Your task to perform on an android device: turn off notifications settings in the gmail app Image 0: 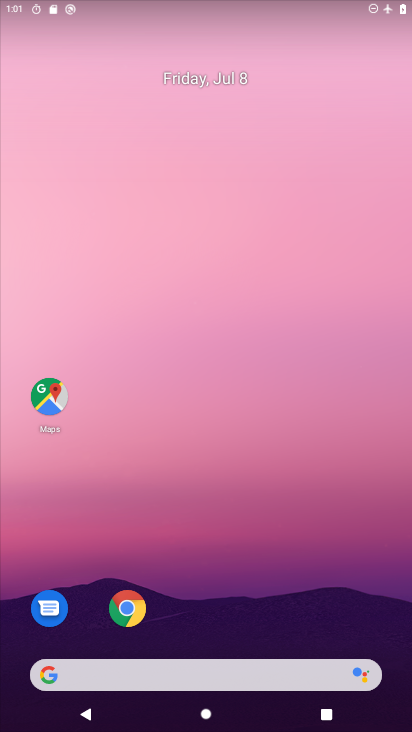
Step 0: drag from (235, 568) to (235, 86)
Your task to perform on an android device: turn off notifications settings in the gmail app Image 1: 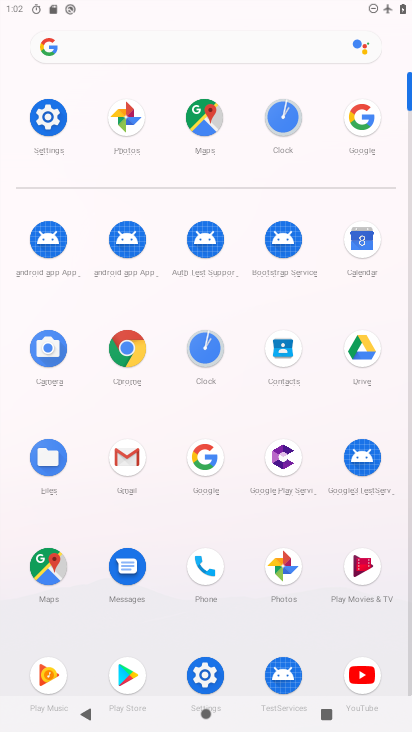
Step 1: click (127, 455)
Your task to perform on an android device: turn off notifications settings in the gmail app Image 2: 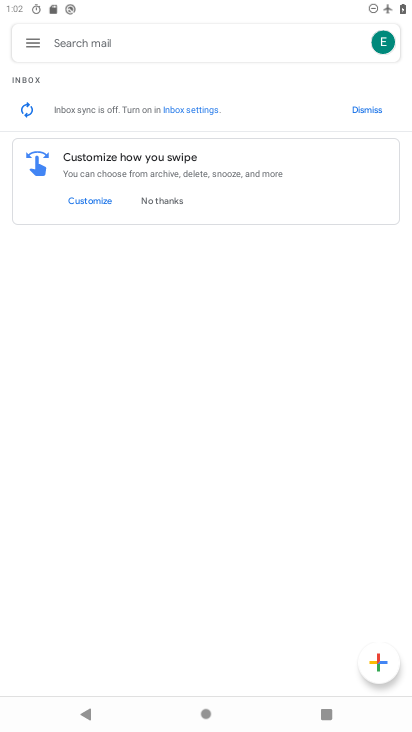
Step 2: click (27, 40)
Your task to perform on an android device: turn off notifications settings in the gmail app Image 3: 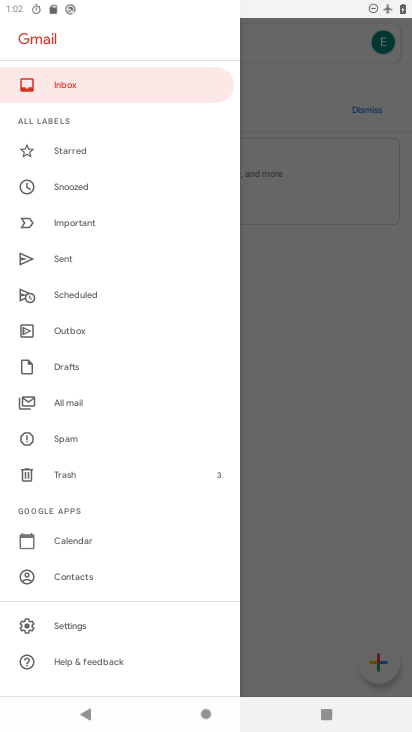
Step 3: click (70, 620)
Your task to perform on an android device: turn off notifications settings in the gmail app Image 4: 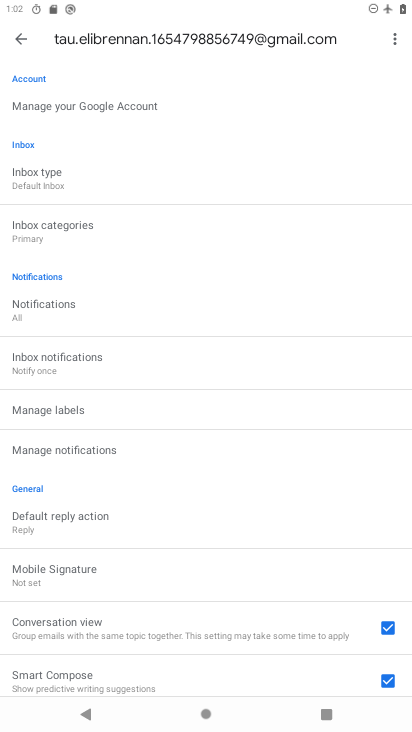
Step 4: click (52, 302)
Your task to perform on an android device: turn off notifications settings in the gmail app Image 5: 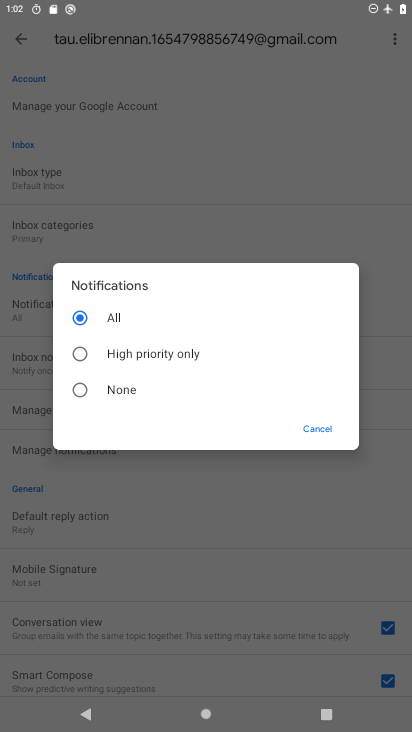
Step 5: click (80, 387)
Your task to perform on an android device: turn off notifications settings in the gmail app Image 6: 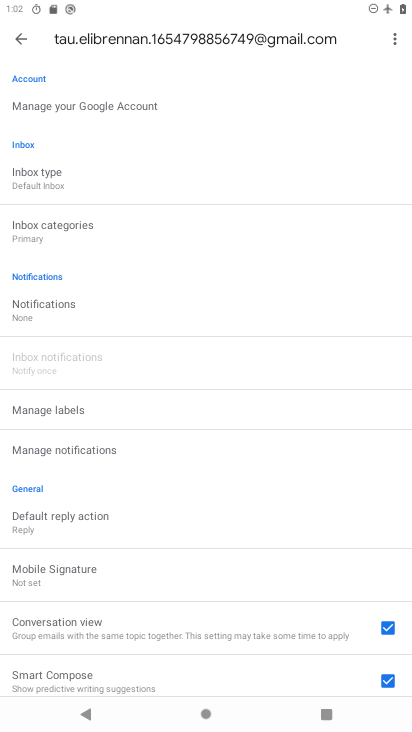
Step 6: task complete